Your task to perform on an android device: install app "Yahoo Mail" Image 0: 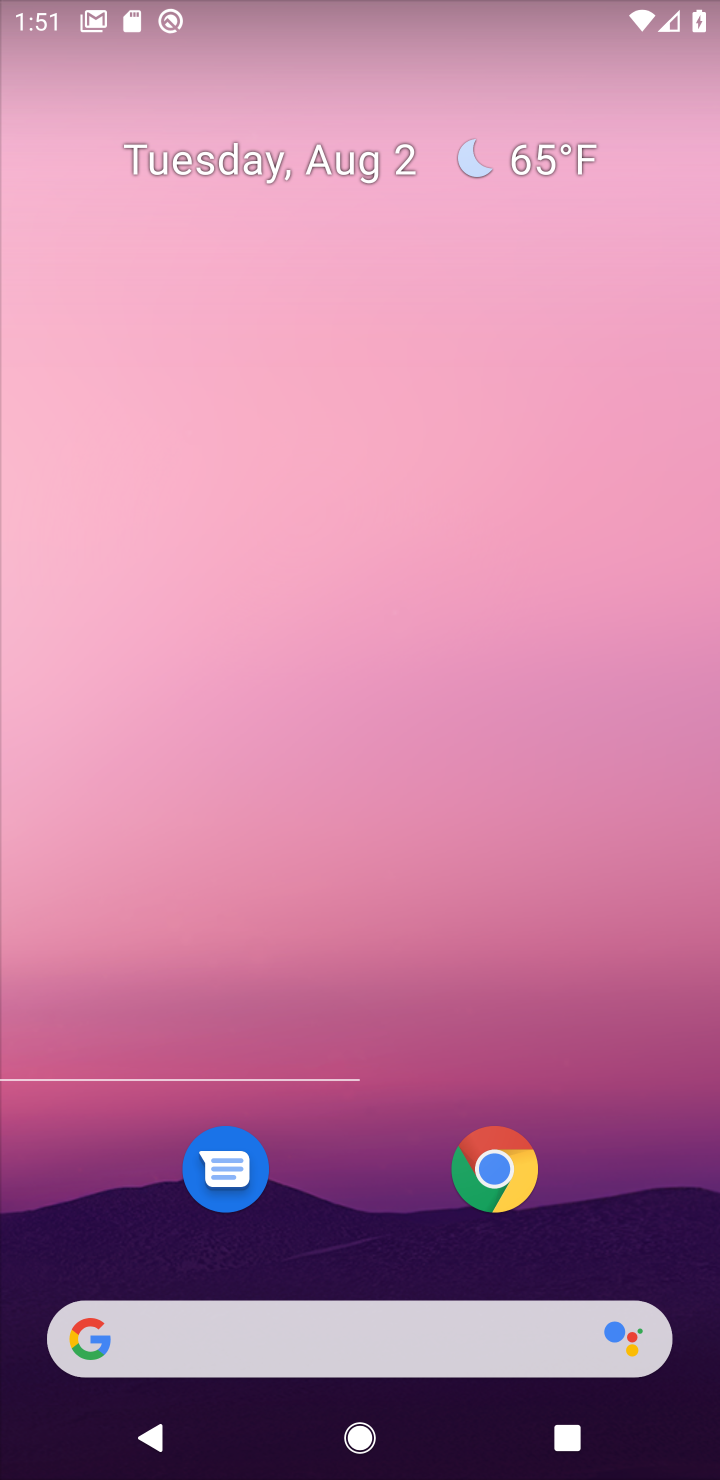
Step 0: press home button
Your task to perform on an android device: install app "Yahoo Mail" Image 1: 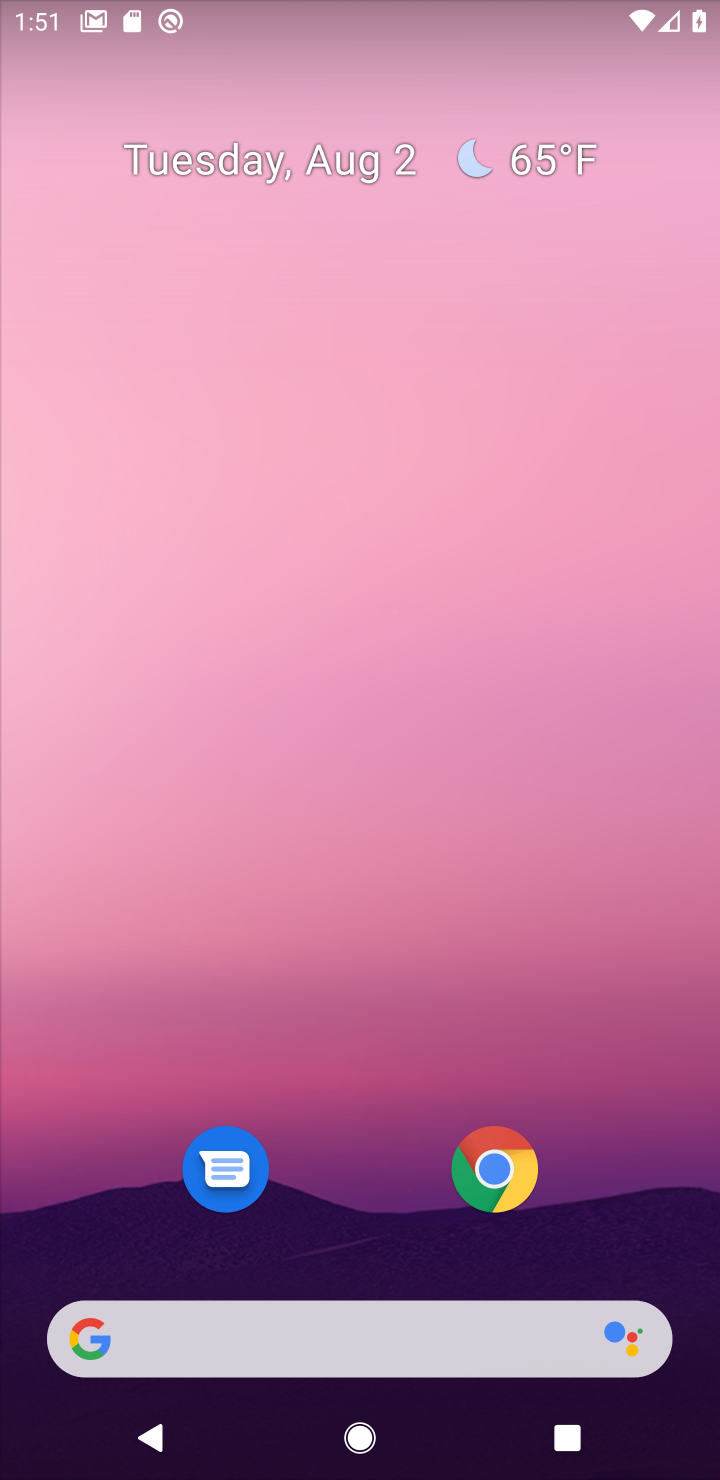
Step 1: drag from (354, 1264) to (618, 0)
Your task to perform on an android device: install app "Yahoo Mail" Image 2: 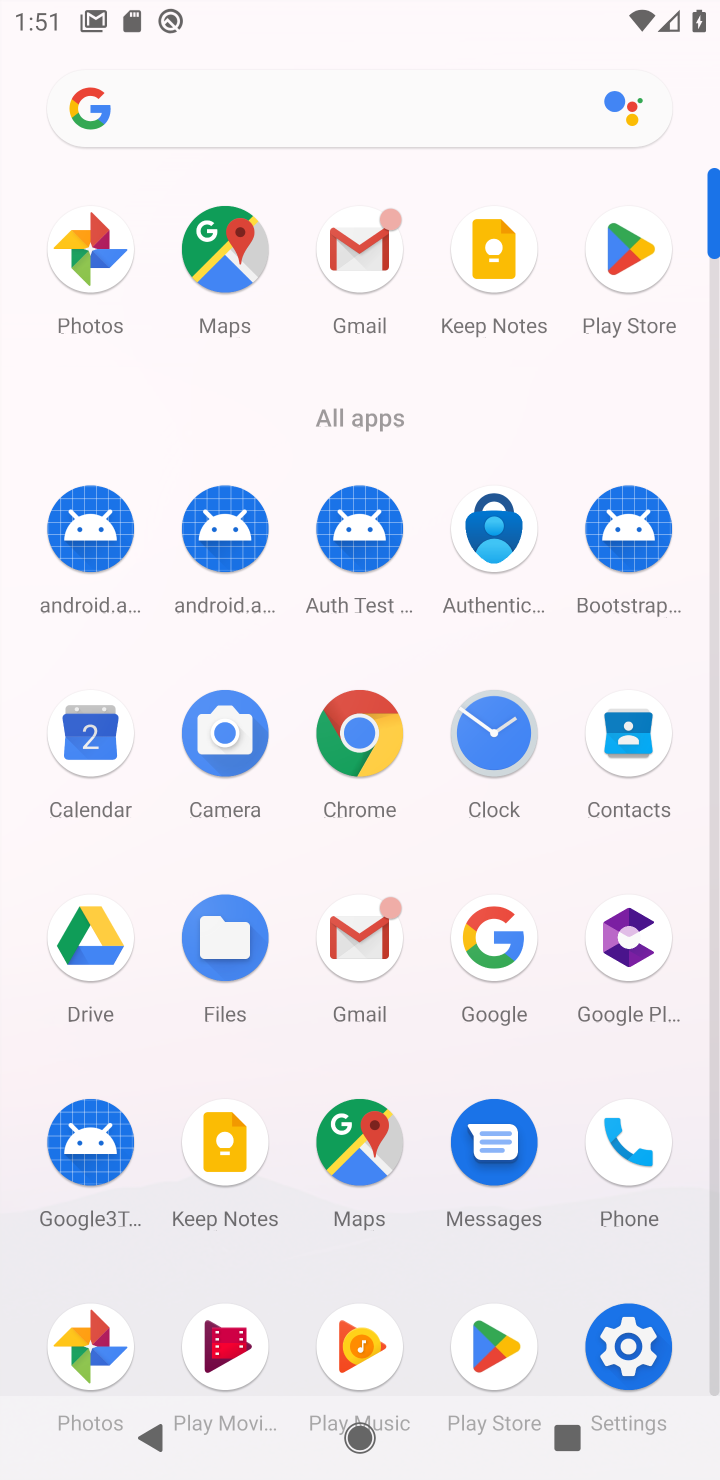
Step 2: click (621, 233)
Your task to perform on an android device: install app "Yahoo Mail" Image 3: 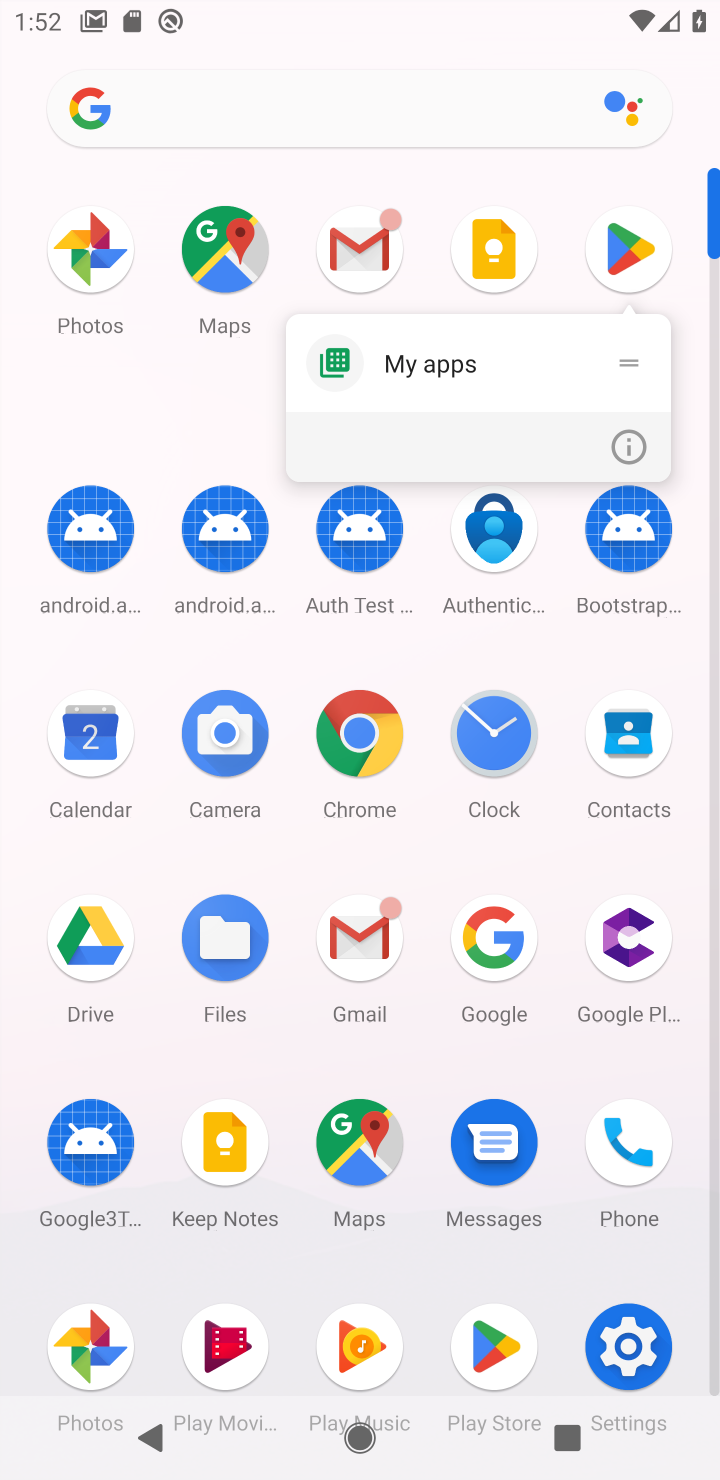
Step 3: click (627, 240)
Your task to perform on an android device: install app "Yahoo Mail" Image 4: 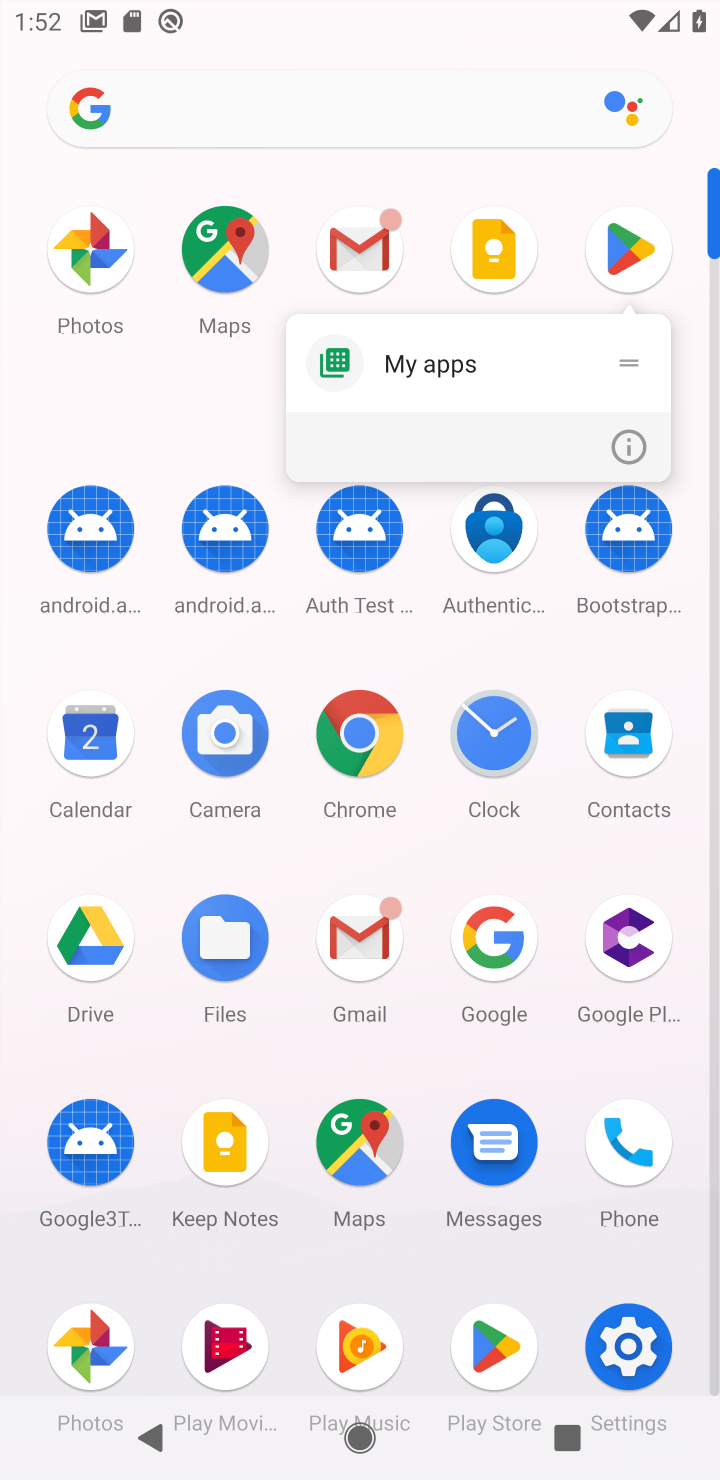
Step 4: click (636, 246)
Your task to perform on an android device: install app "Yahoo Mail" Image 5: 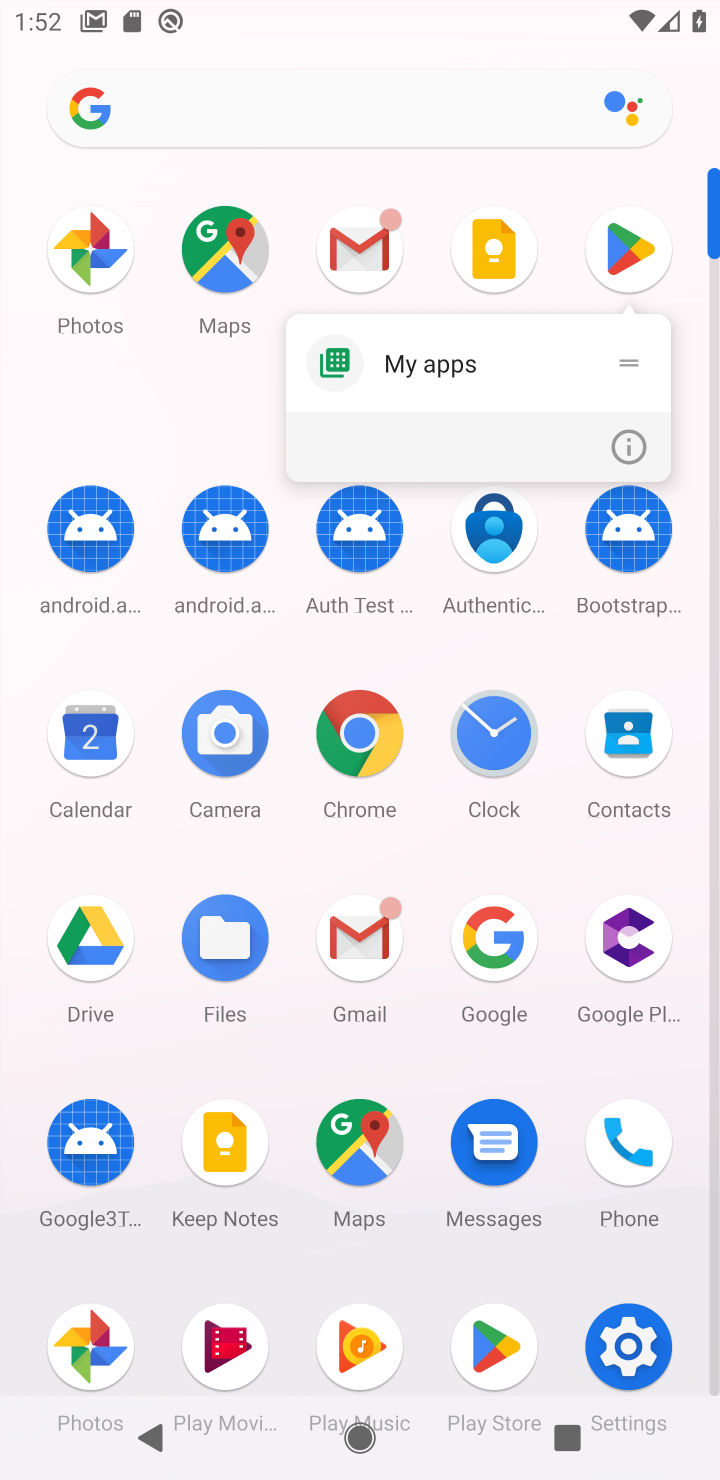
Step 5: click (637, 249)
Your task to perform on an android device: install app "Yahoo Mail" Image 6: 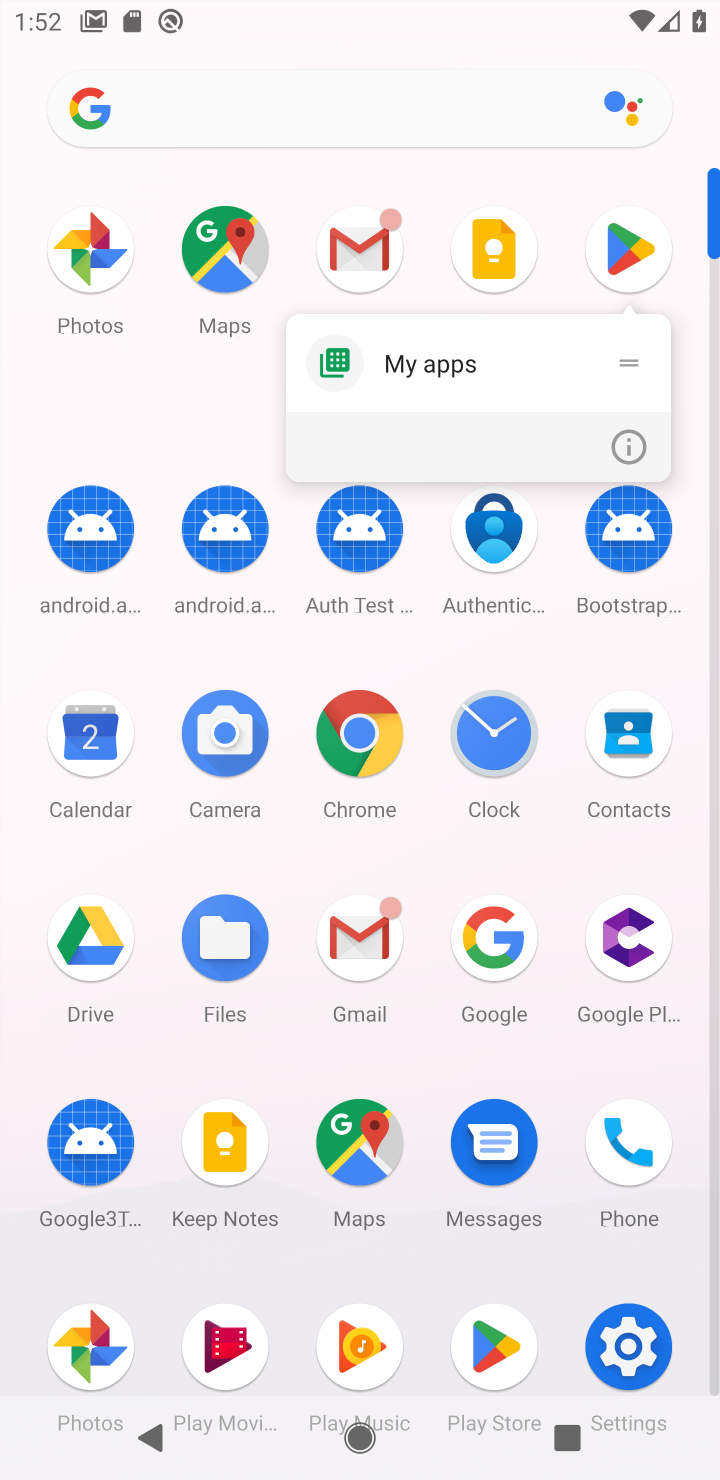
Step 6: click (637, 249)
Your task to perform on an android device: install app "Yahoo Mail" Image 7: 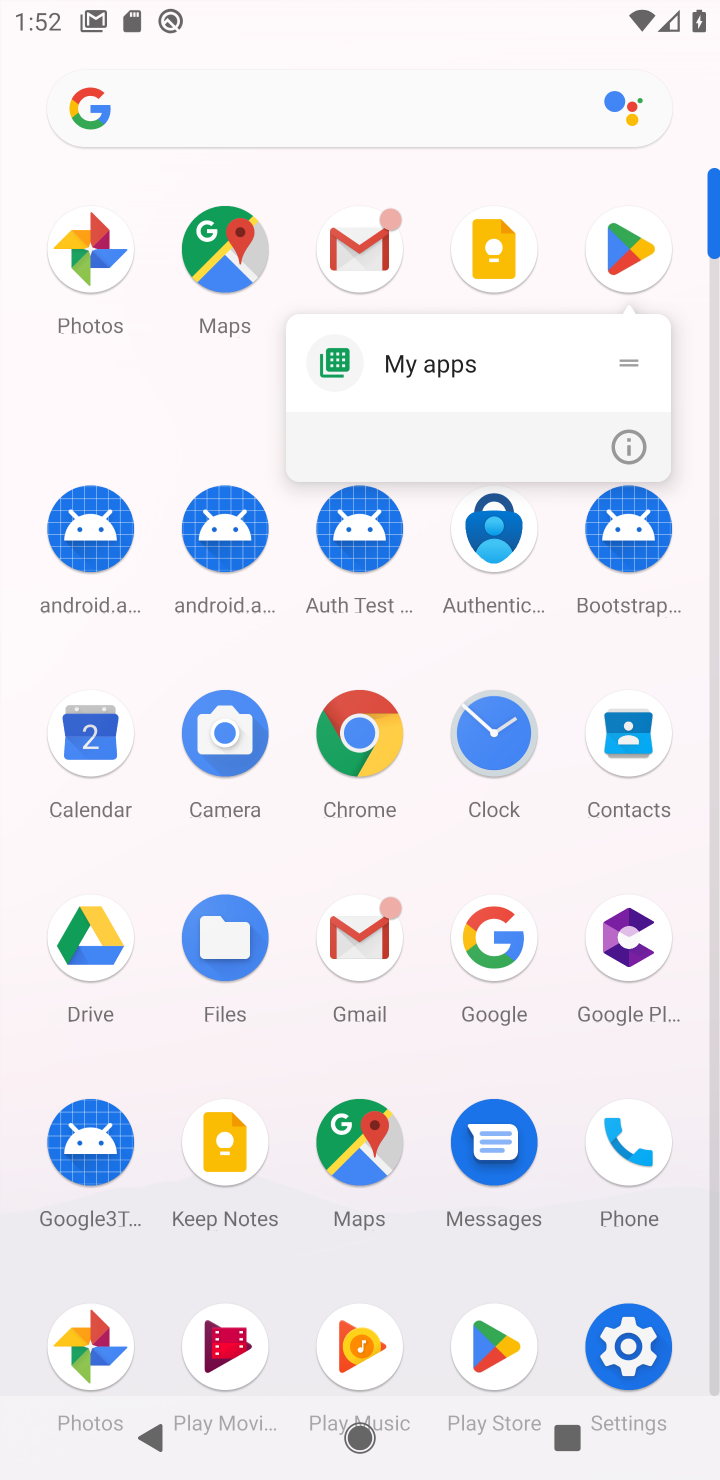
Step 7: click (642, 248)
Your task to perform on an android device: install app "Yahoo Mail" Image 8: 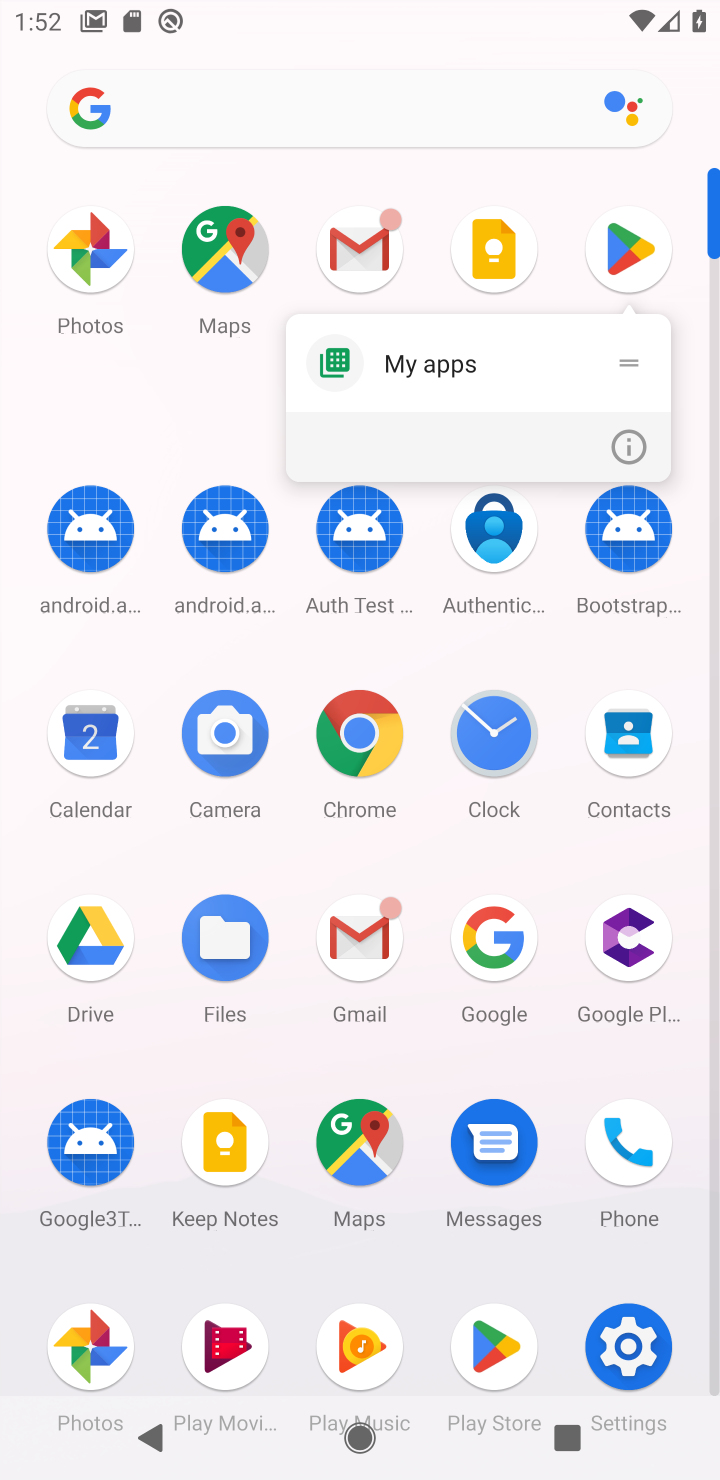
Step 8: click (631, 243)
Your task to perform on an android device: install app "Yahoo Mail" Image 9: 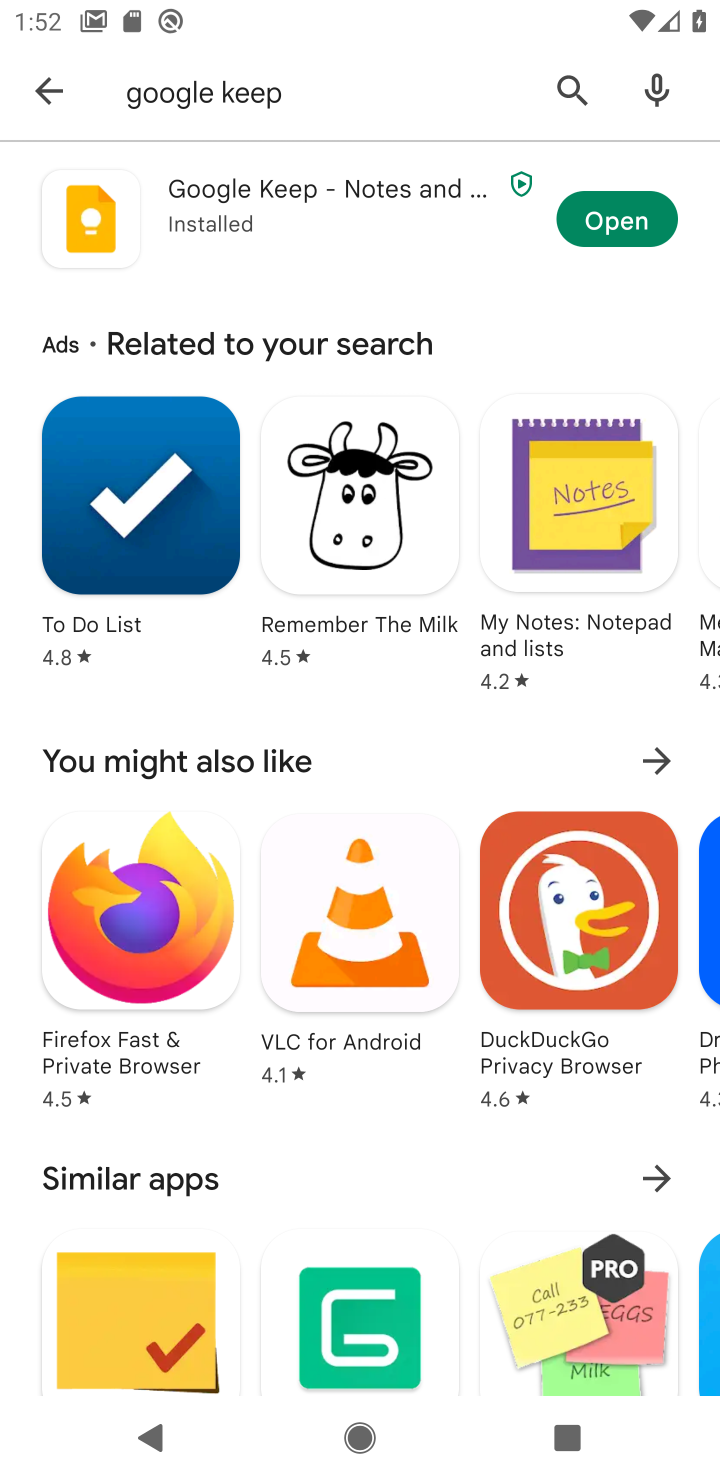
Step 9: click (574, 89)
Your task to perform on an android device: install app "Yahoo Mail" Image 10: 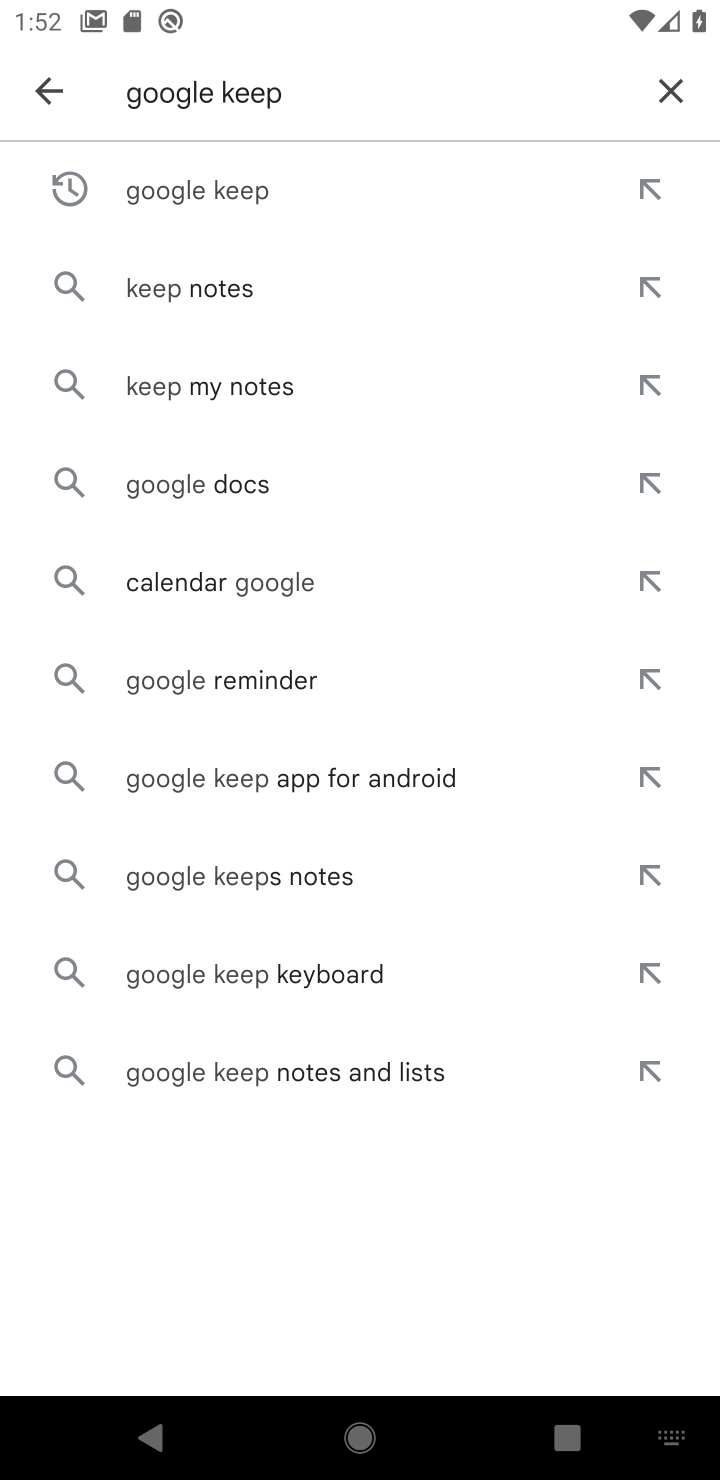
Step 10: type "Yahoo Mail"
Your task to perform on an android device: install app "Yahoo Mail" Image 11: 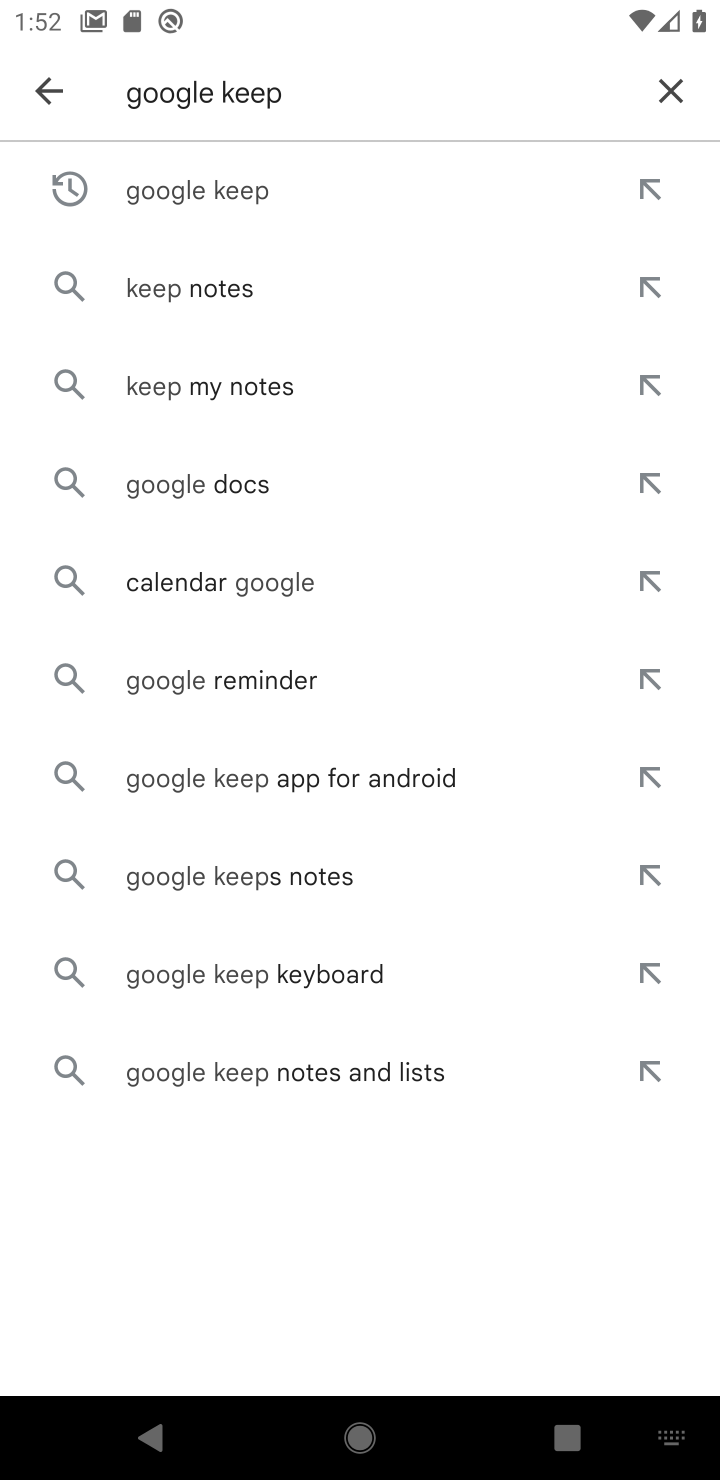
Step 11: click (673, 95)
Your task to perform on an android device: install app "Yahoo Mail" Image 12: 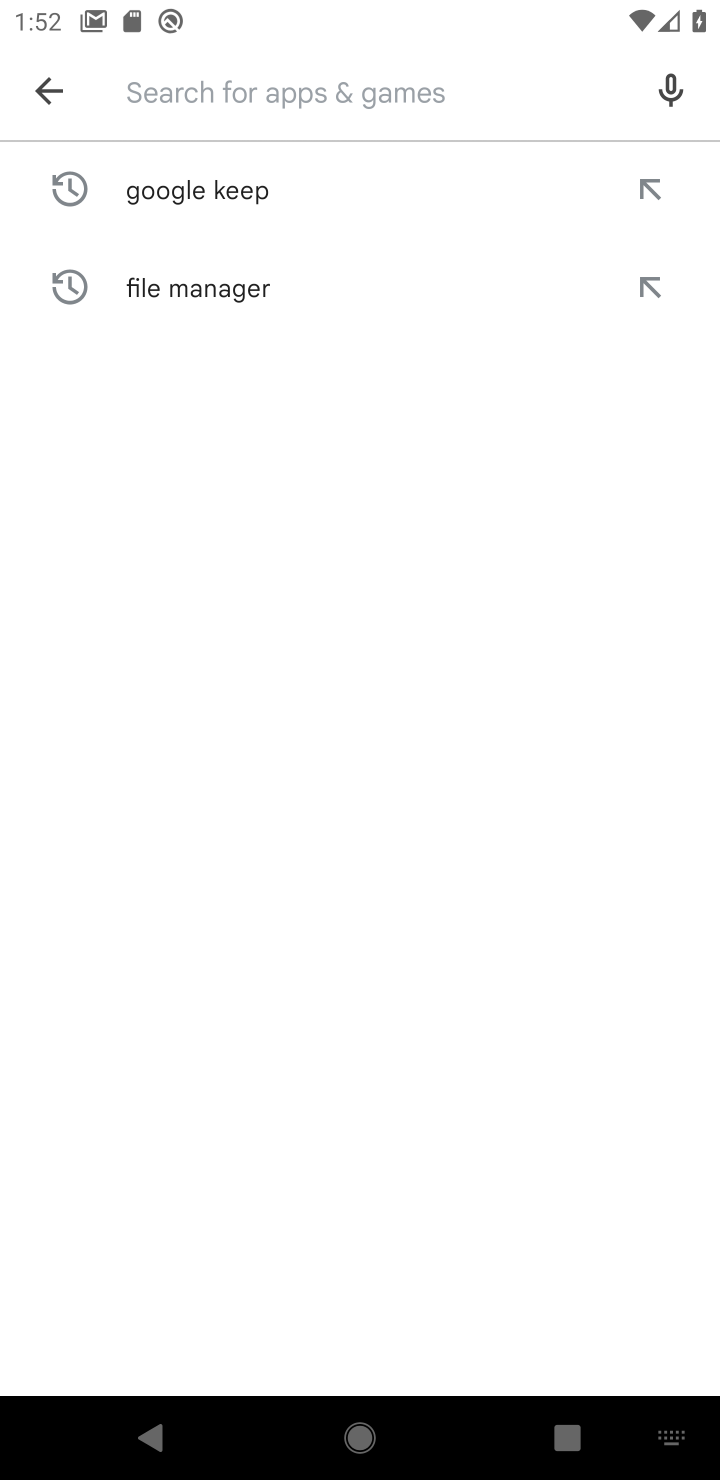
Step 12: type "Yahoo Mail"
Your task to perform on an android device: install app "Yahoo Mail" Image 13: 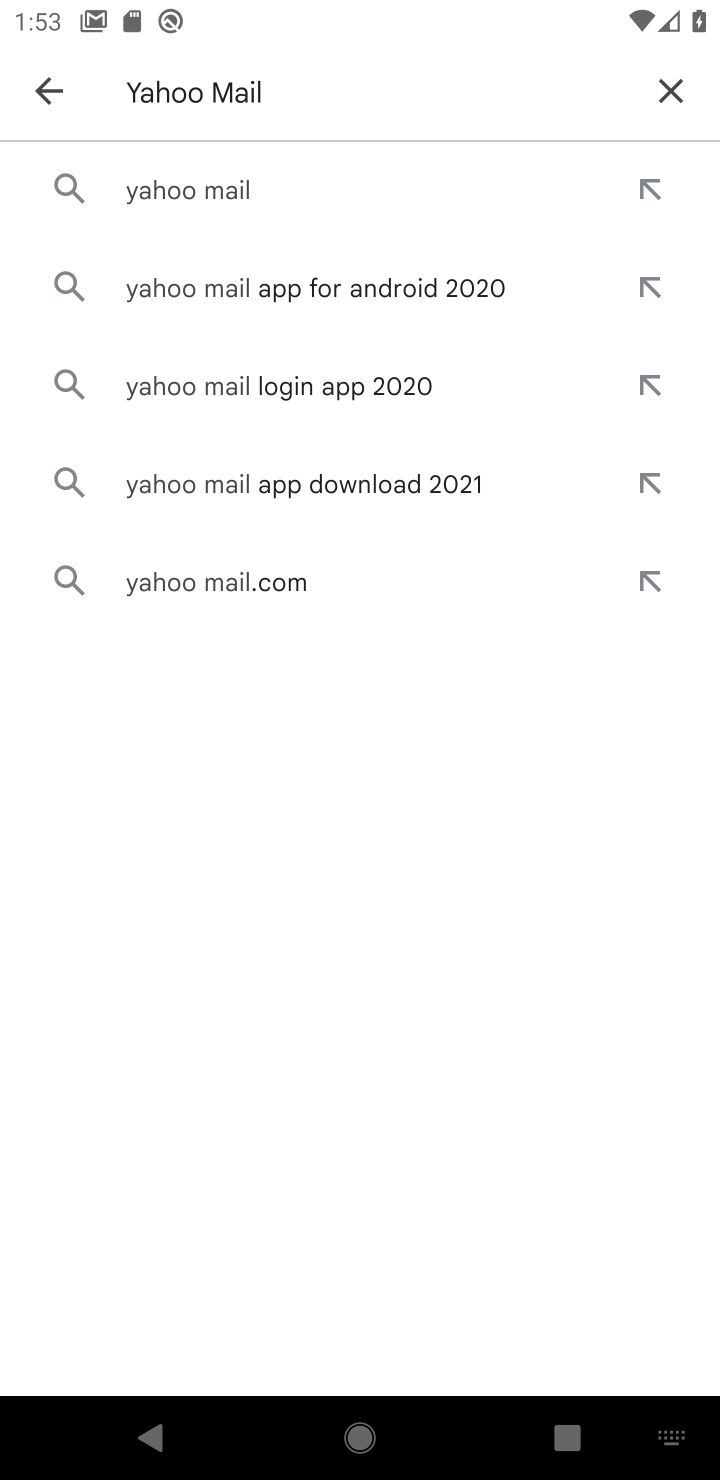
Step 13: click (205, 187)
Your task to perform on an android device: install app "Yahoo Mail" Image 14: 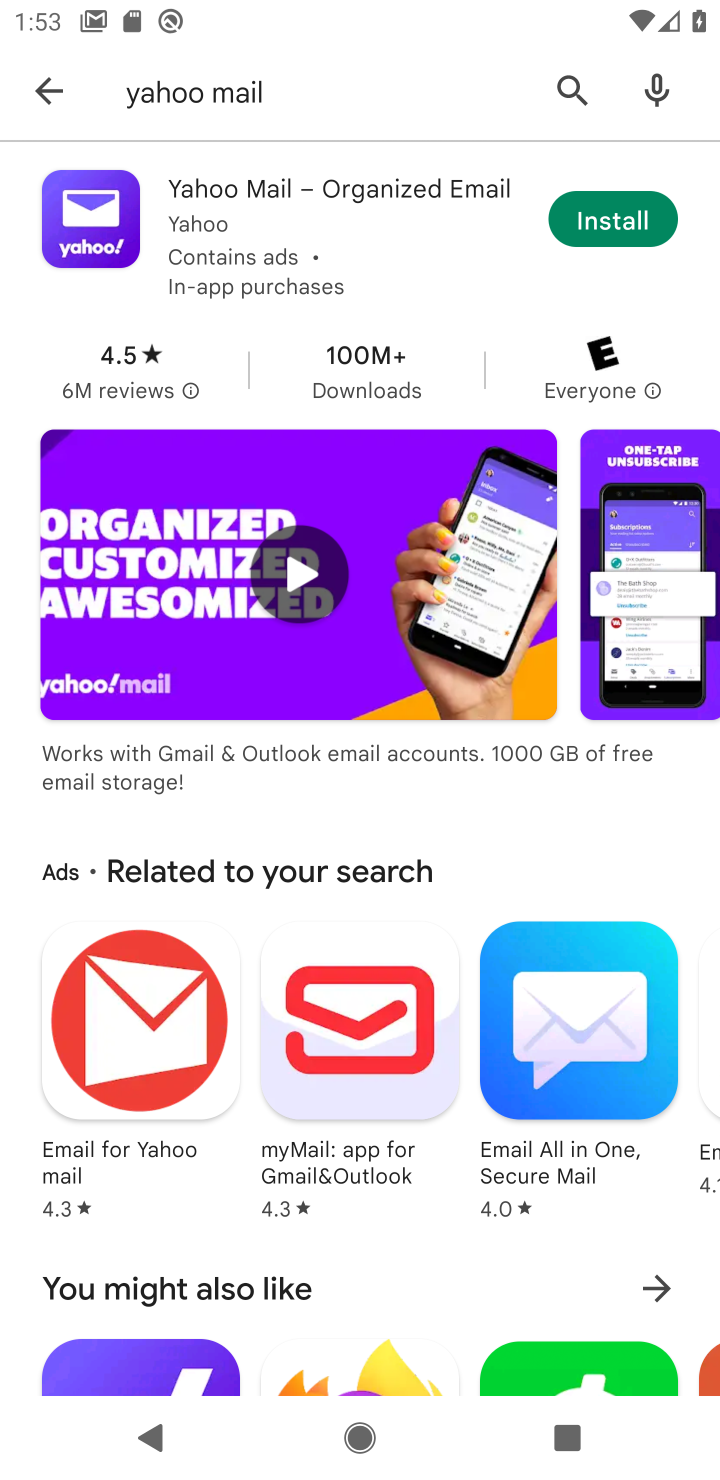
Step 14: click (601, 218)
Your task to perform on an android device: install app "Yahoo Mail" Image 15: 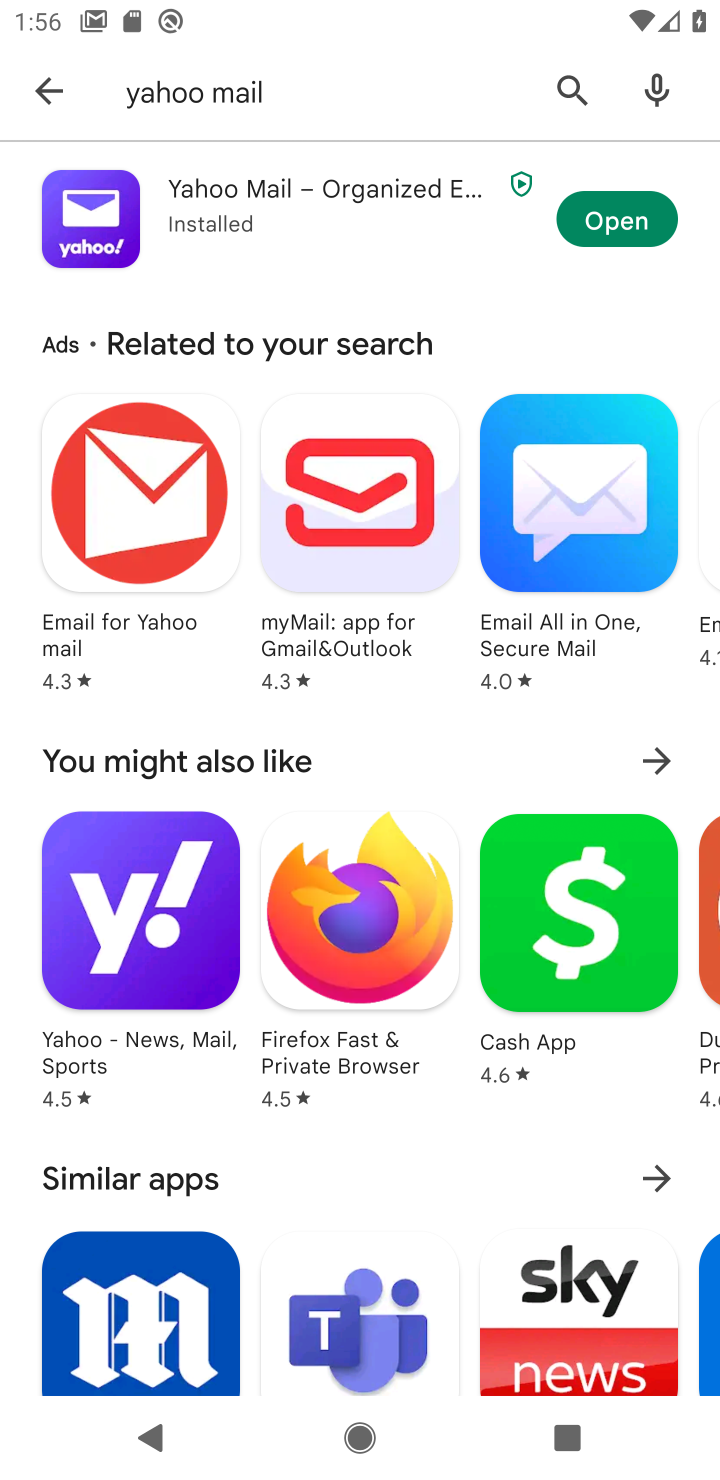
Step 15: click (622, 220)
Your task to perform on an android device: install app "Yahoo Mail" Image 16: 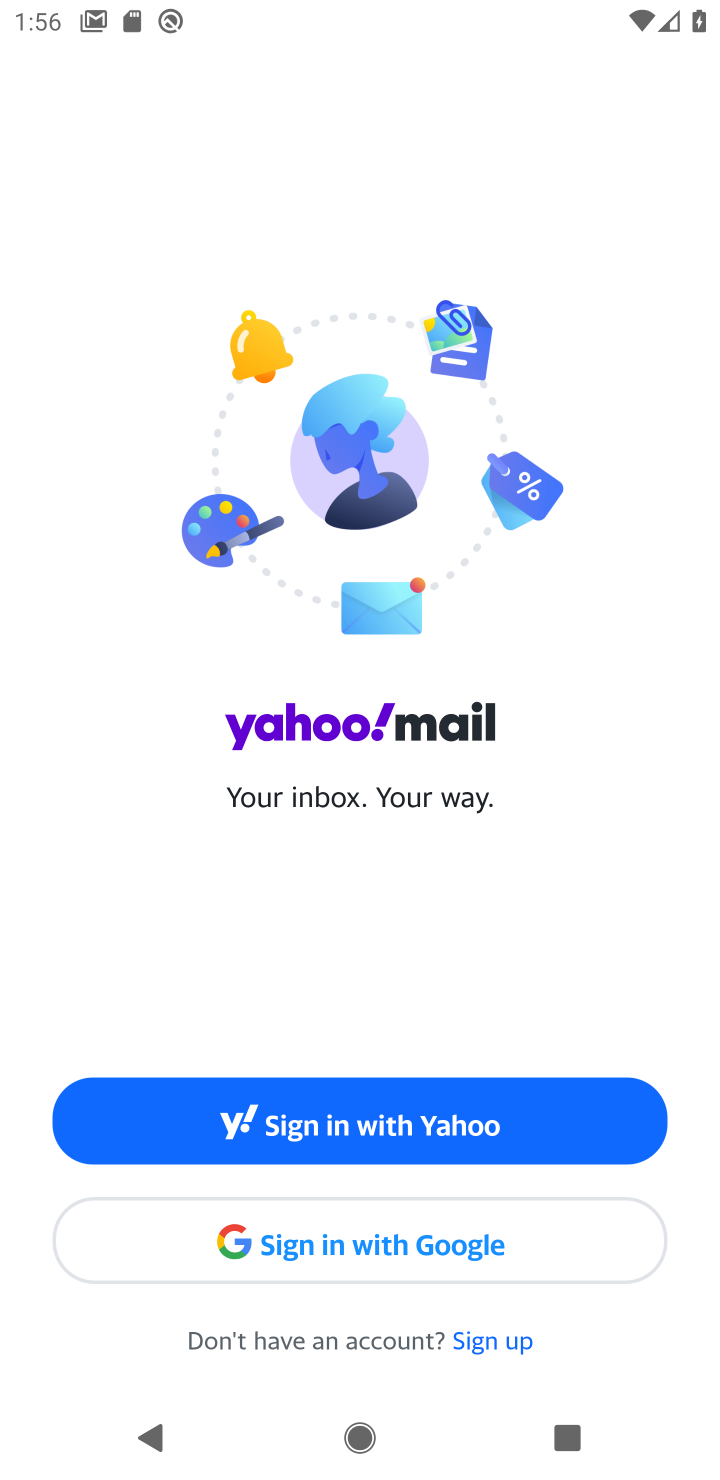
Step 16: click (360, 1249)
Your task to perform on an android device: install app "Yahoo Mail" Image 17: 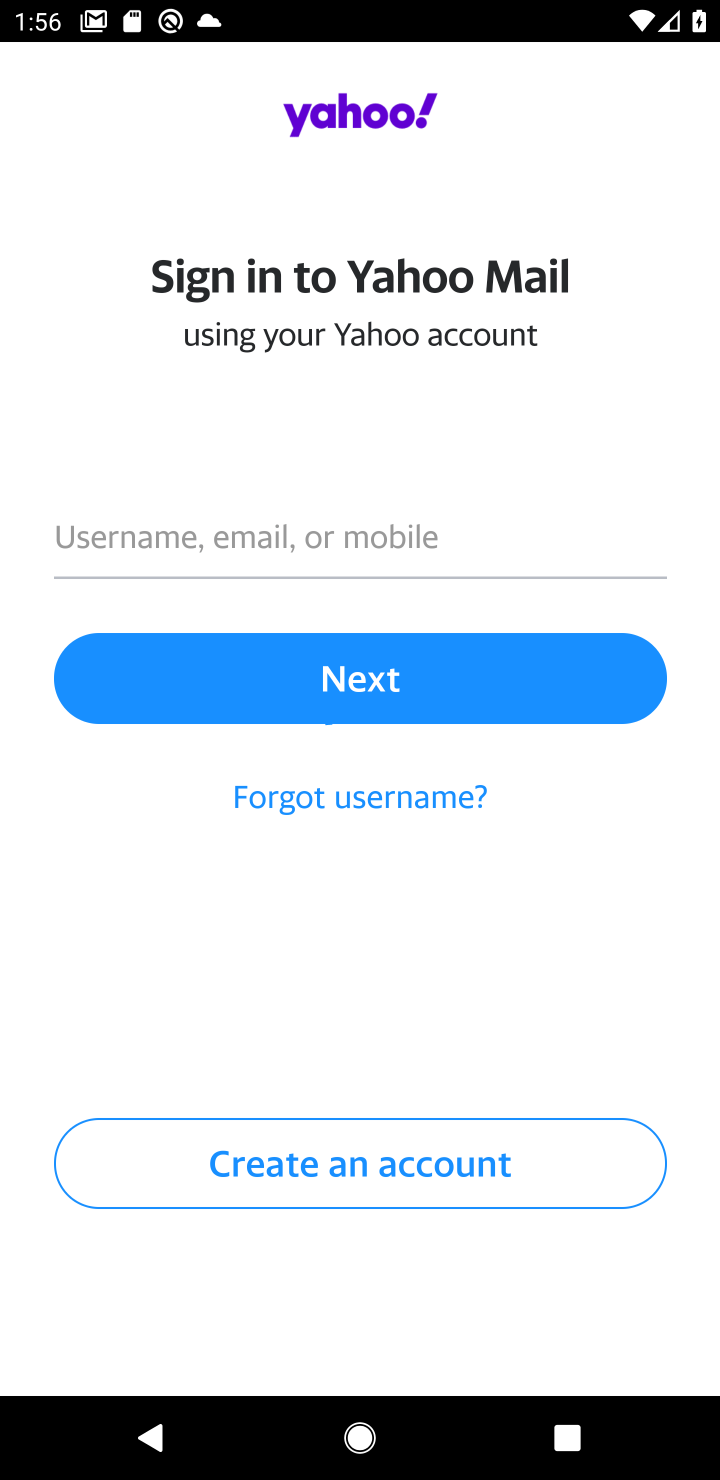
Step 17: task complete